Your task to perform on an android device: turn notification dots on Image 0: 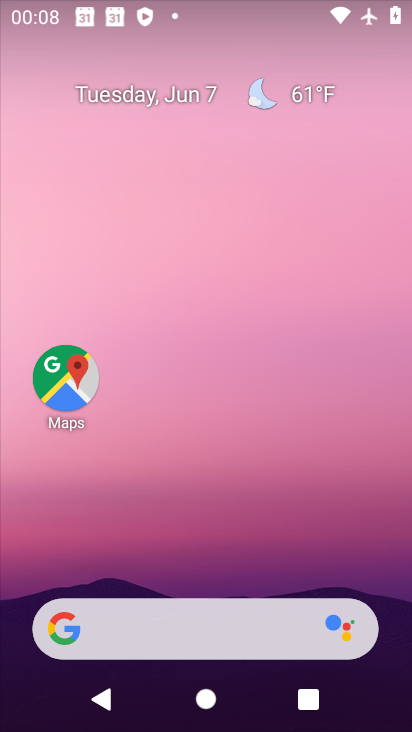
Step 0: drag from (209, 558) to (188, 97)
Your task to perform on an android device: turn notification dots on Image 1: 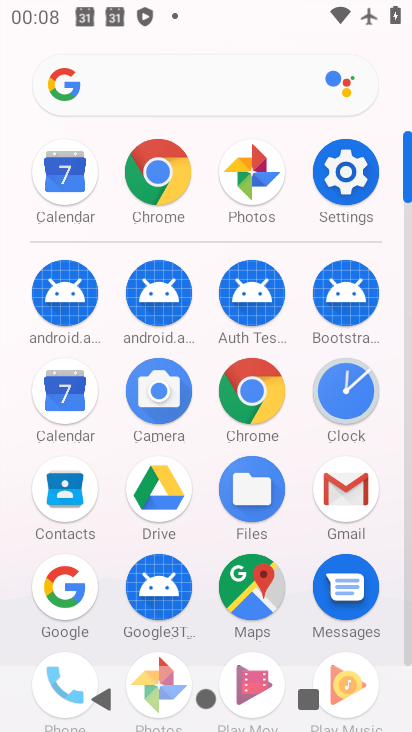
Step 1: click (350, 173)
Your task to perform on an android device: turn notification dots on Image 2: 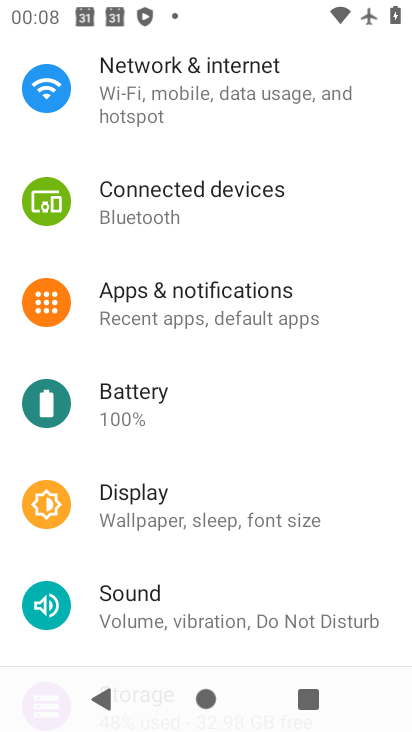
Step 2: click (200, 297)
Your task to perform on an android device: turn notification dots on Image 3: 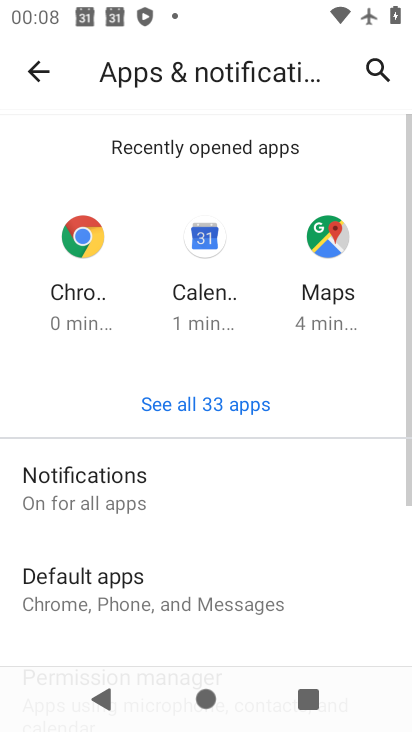
Step 3: click (146, 489)
Your task to perform on an android device: turn notification dots on Image 4: 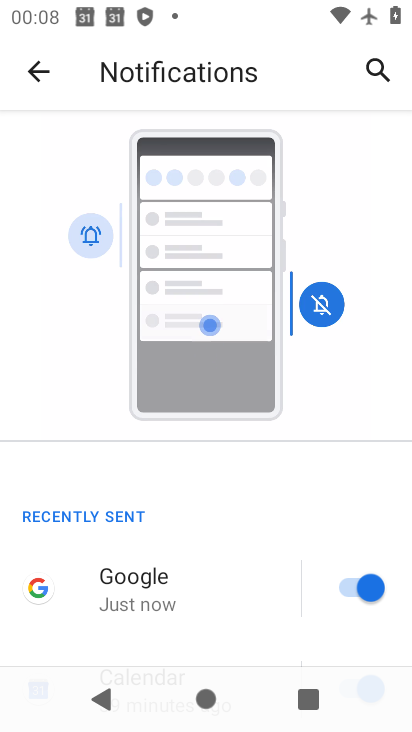
Step 4: drag from (164, 521) to (201, 97)
Your task to perform on an android device: turn notification dots on Image 5: 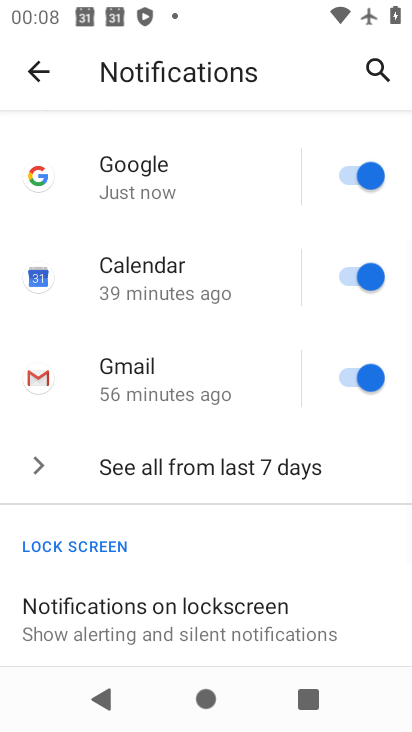
Step 5: drag from (203, 525) to (197, 181)
Your task to perform on an android device: turn notification dots on Image 6: 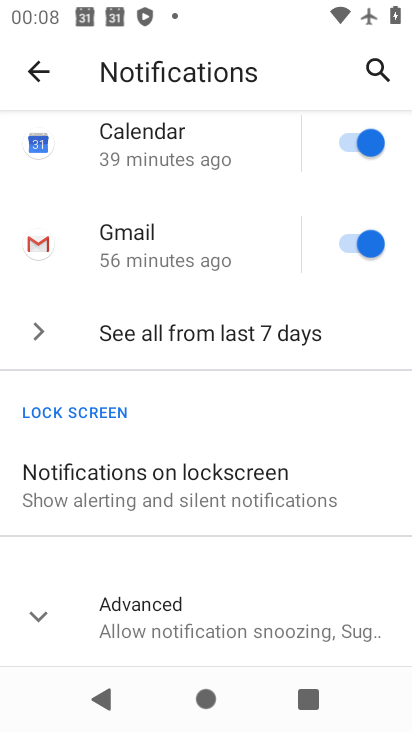
Step 6: click (121, 631)
Your task to perform on an android device: turn notification dots on Image 7: 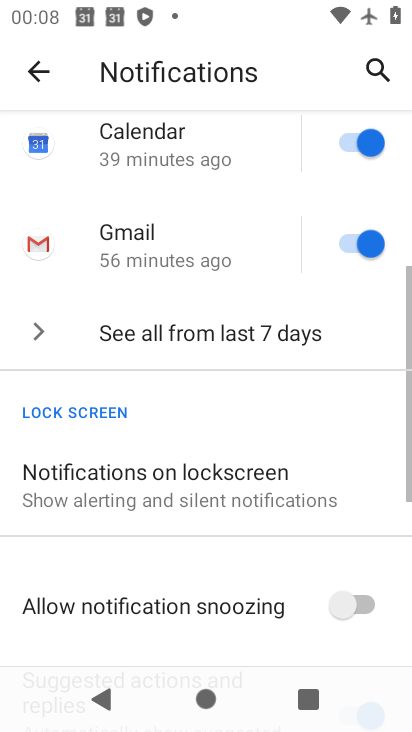
Step 7: drag from (269, 599) to (255, 226)
Your task to perform on an android device: turn notification dots on Image 8: 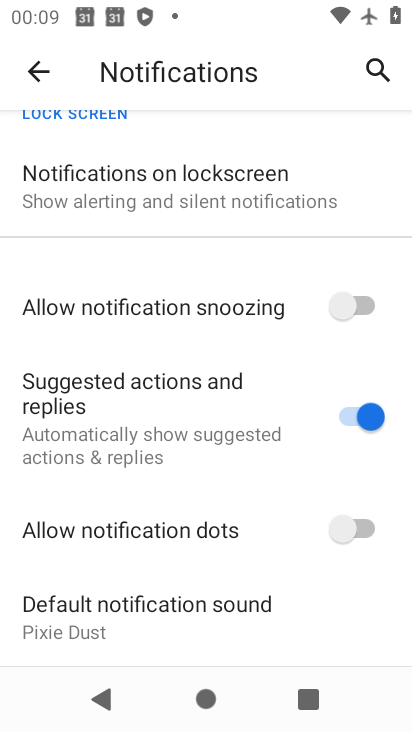
Step 8: click (348, 528)
Your task to perform on an android device: turn notification dots on Image 9: 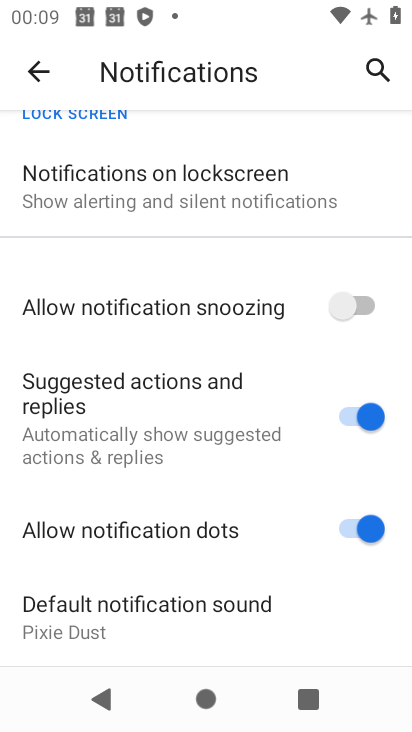
Step 9: task complete